Your task to perform on an android device: toggle pop-ups in chrome Image 0: 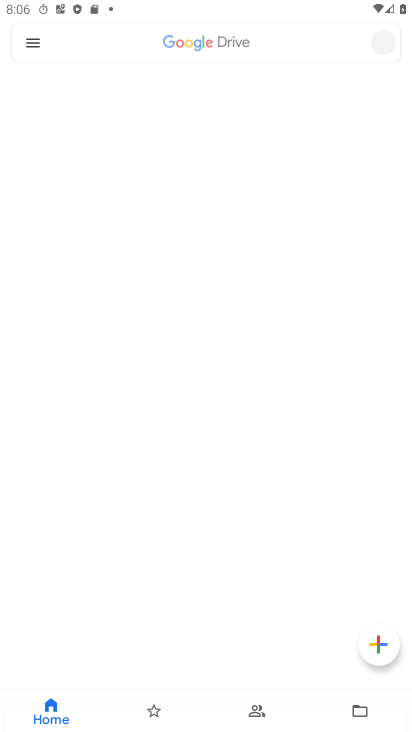
Step 0: drag from (13, 665) to (171, 265)
Your task to perform on an android device: toggle pop-ups in chrome Image 1: 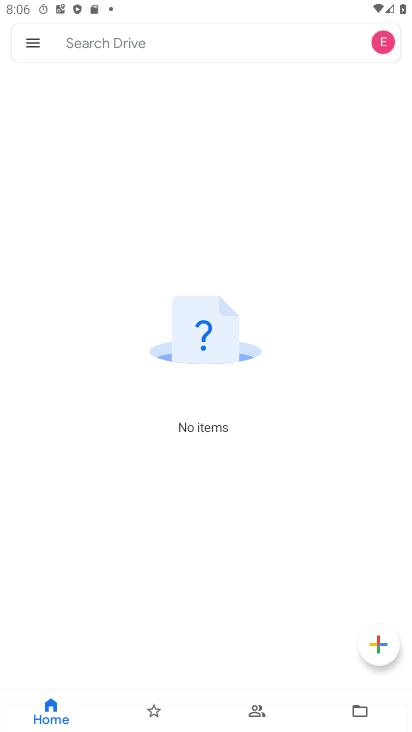
Step 1: press home button
Your task to perform on an android device: toggle pop-ups in chrome Image 2: 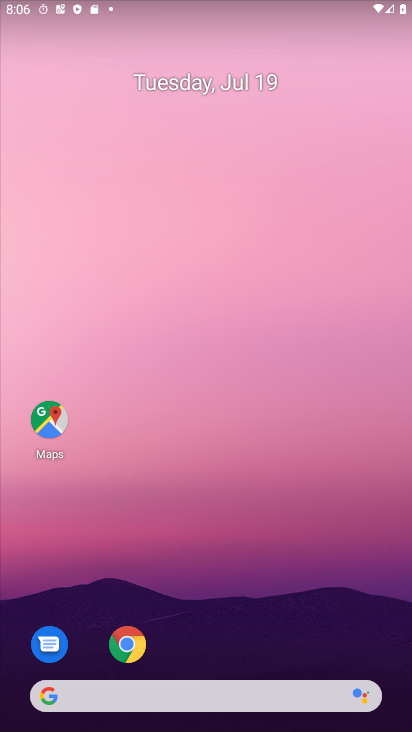
Step 2: click (123, 645)
Your task to perform on an android device: toggle pop-ups in chrome Image 3: 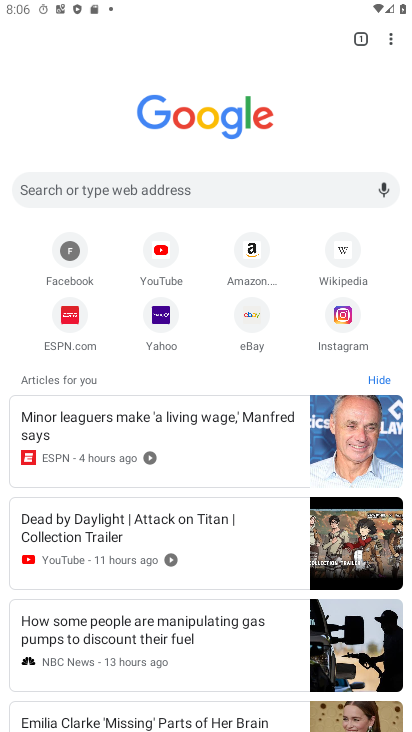
Step 3: click (387, 37)
Your task to perform on an android device: toggle pop-ups in chrome Image 4: 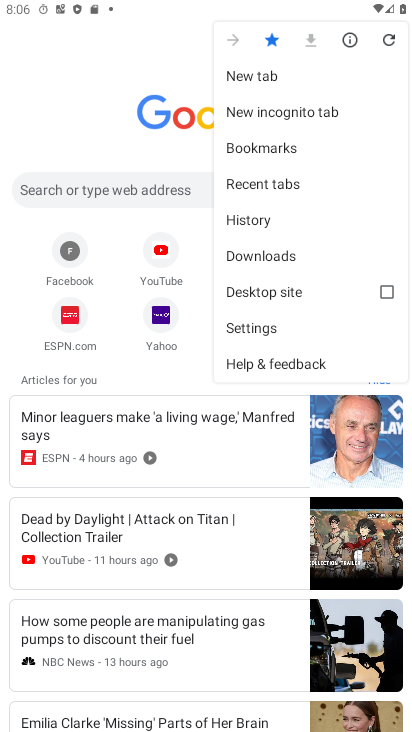
Step 4: click (260, 331)
Your task to perform on an android device: toggle pop-ups in chrome Image 5: 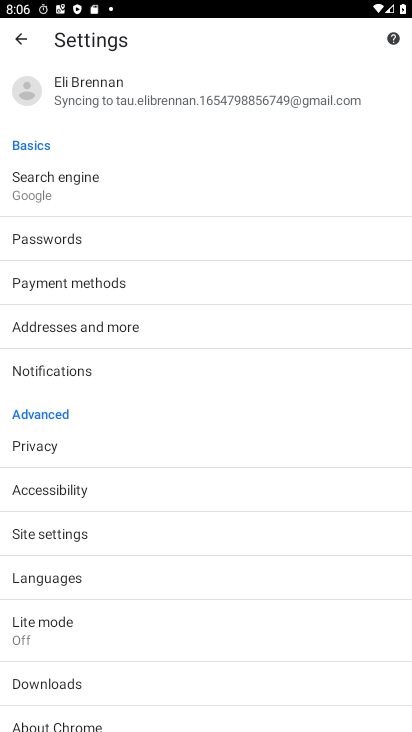
Step 5: click (40, 526)
Your task to perform on an android device: toggle pop-ups in chrome Image 6: 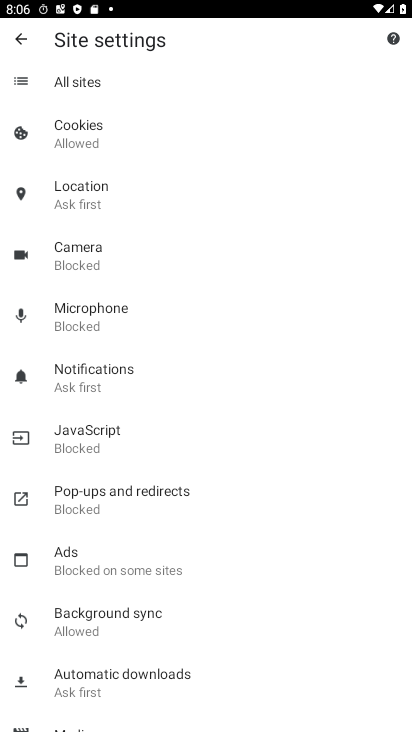
Step 6: click (142, 496)
Your task to perform on an android device: toggle pop-ups in chrome Image 7: 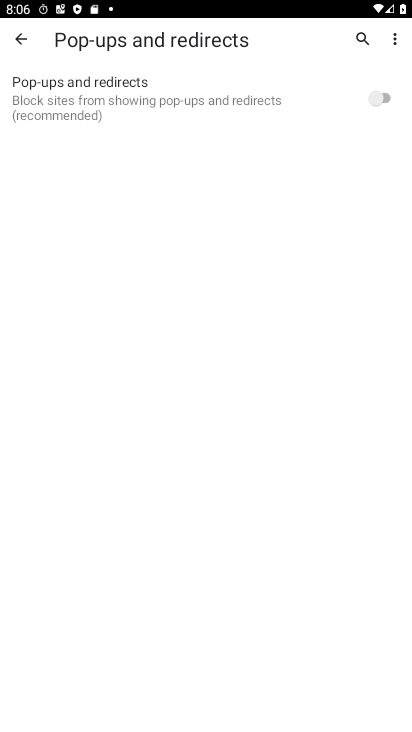
Step 7: click (383, 99)
Your task to perform on an android device: toggle pop-ups in chrome Image 8: 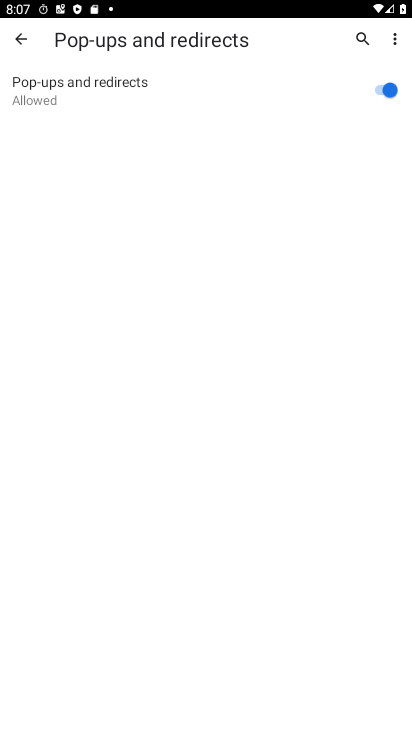
Step 8: task complete